Your task to perform on an android device: open app "Paramount+ | Peak Streaming" (install if not already installed) and enter user name: "fostered@yahoo.com" and password: "strong" Image 0: 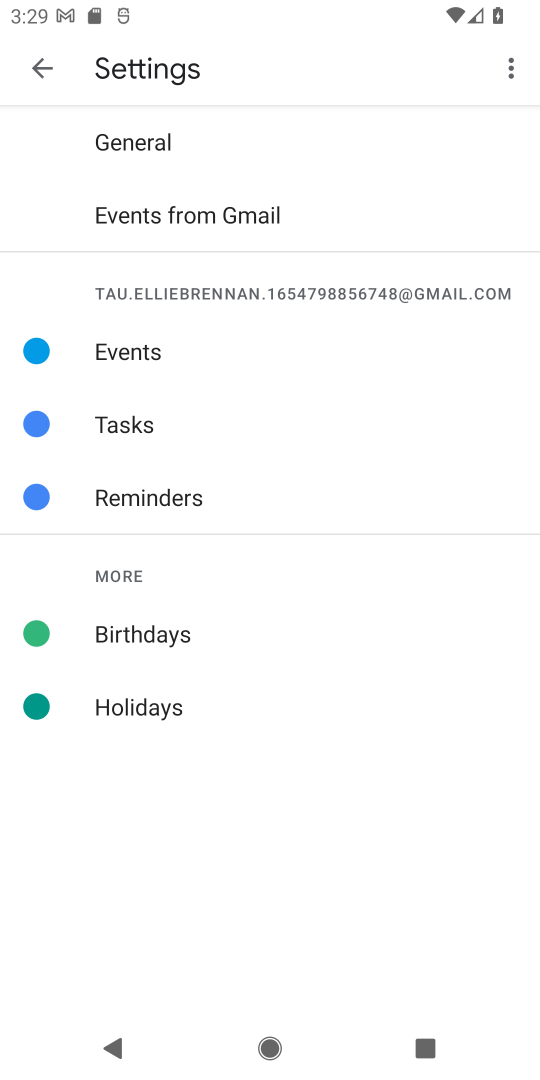
Step 0: press back button
Your task to perform on an android device: open app "Paramount+ | Peak Streaming" (install if not already installed) and enter user name: "fostered@yahoo.com" and password: "strong" Image 1: 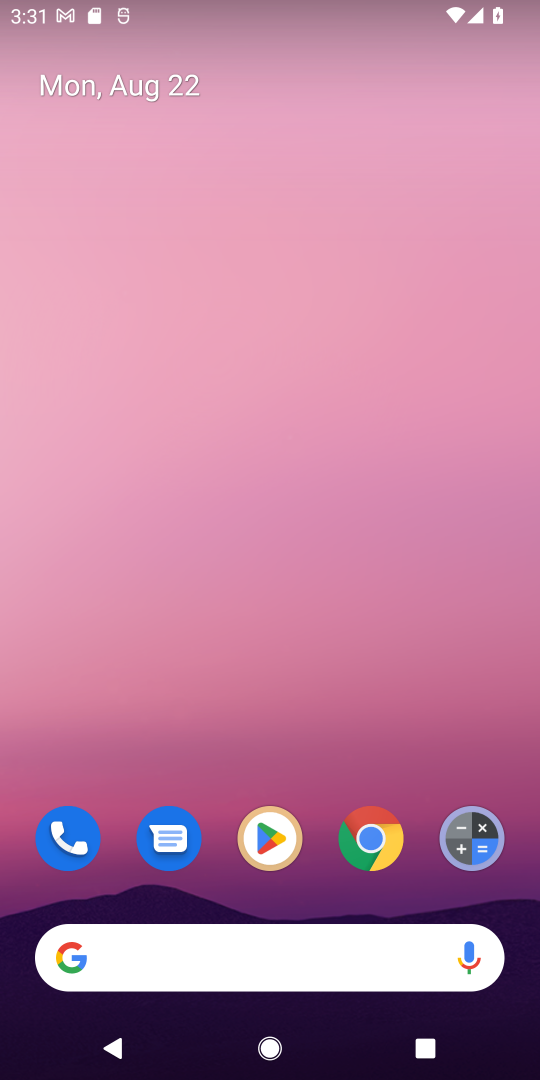
Step 1: click (259, 829)
Your task to perform on an android device: open app "Paramount+ | Peak Streaming" (install if not already installed) and enter user name: "fostered@yahoo.com" and password: "strong" Image 2: 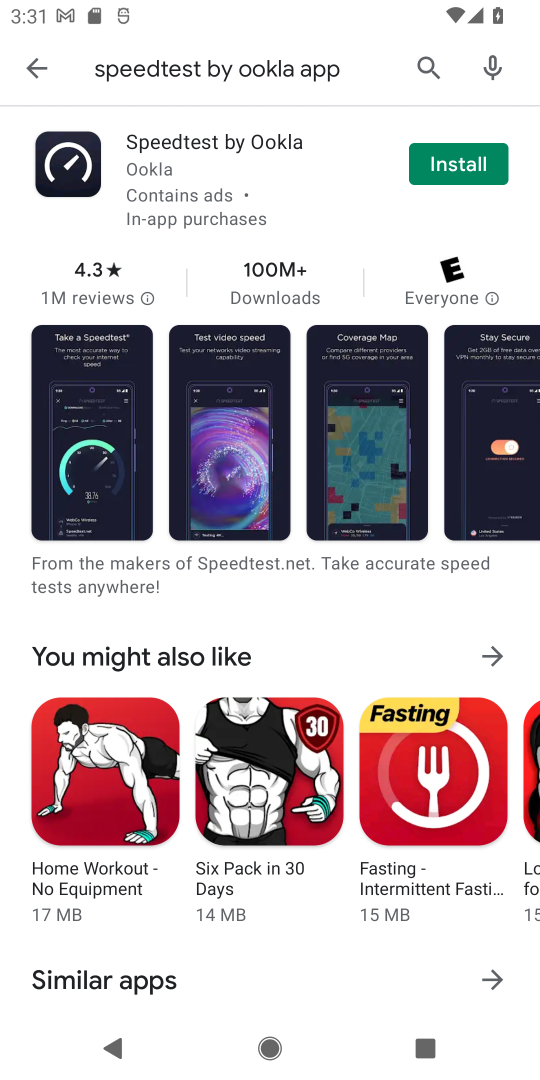
Step 2: click (395, 57)
Your task to perform on an android device: open app "Paramount+ | Peak Streaming" (install if not already installed) and enter user name: "fostered@yahoo.com" and password: "strong" Image 3: 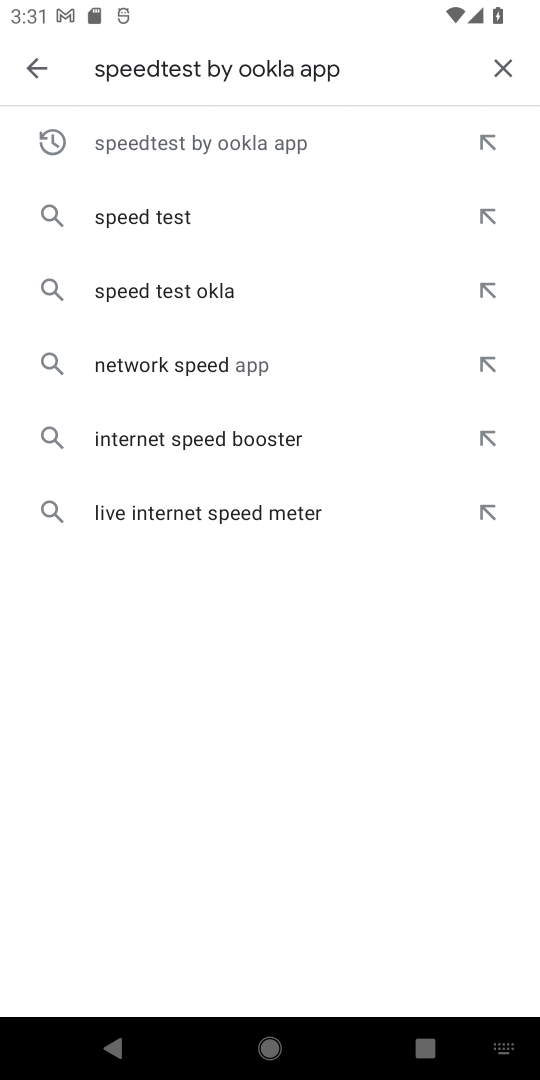
Step 3: click (505, 55)
Your task to perform on an android device: open app "Paramount+ | Peak Streaming" (install if not already installed) and enter user name: "fostered@yahoo.com" and password: "strong" Image 4: 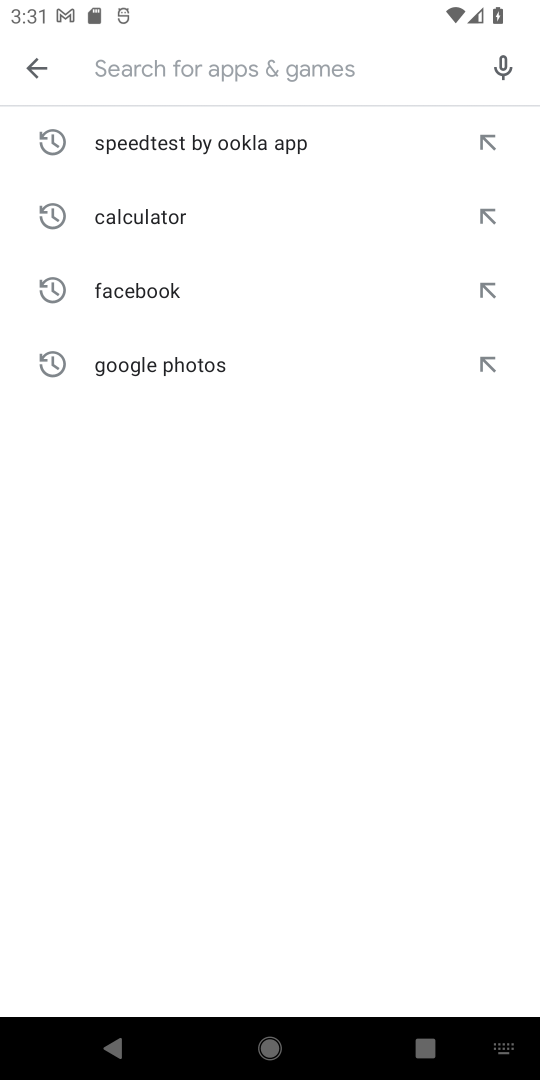
Step 4: click (210, 80)
Your task to perform on an android device: open app "Paramount+ | Peak Streaming" (install if not already installed) and enter user name: "fostered@yahoo.com" and password: "strong" Image 5: 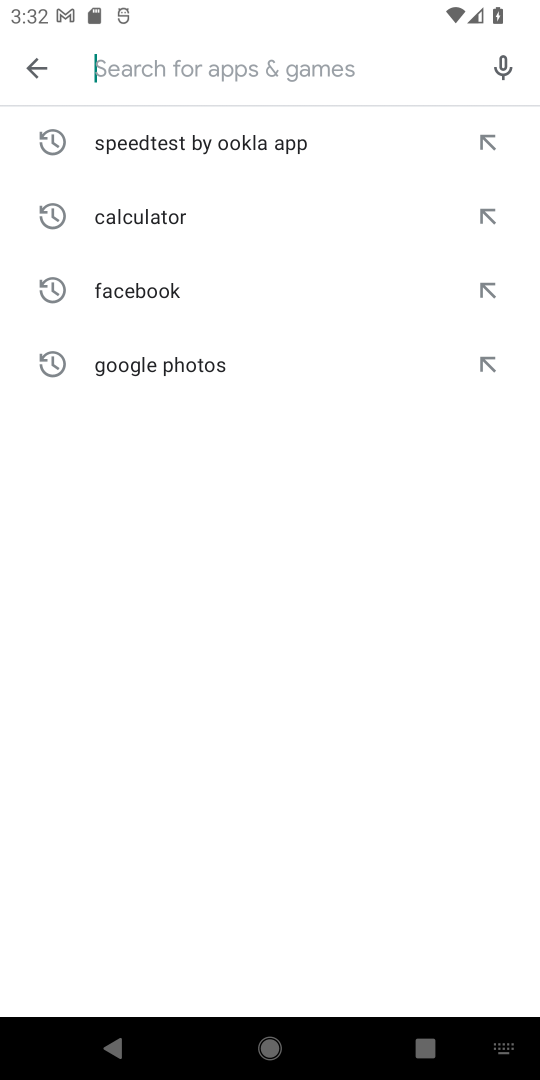
Step 5: click (187, 70)
Your task to perform on an android device: open app "Paramount+ | Peak Streaming" (install if not already installed) and enter user name: "fostered@yahoo.com" and password: "strong" Image 6: 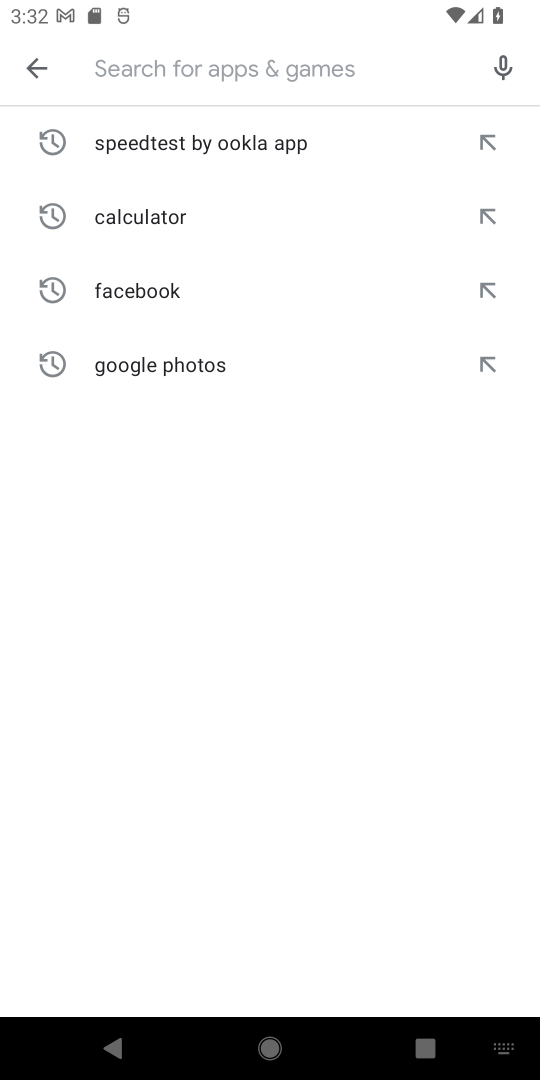
Step 6: type "Paramount+"
Your task to perform on an android device: open app "Paramount+ | Peak Streaming" (install if not already installed) and enter user name: "fostered@yahoo.com" and password: "strong" Image 7: 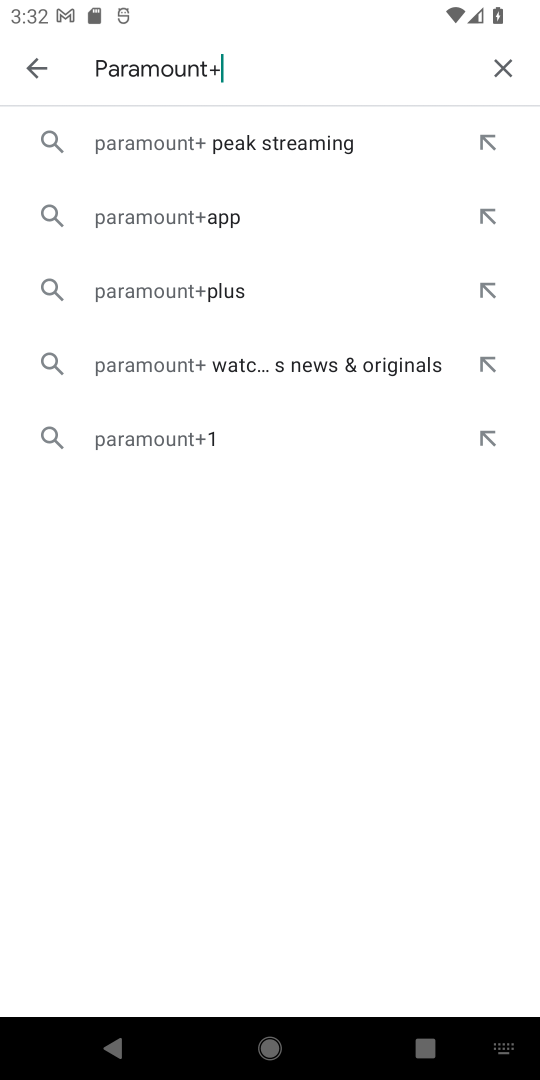
Step 7: click (199, 140)
Your task to perform on an android device: open app "Paramount+ | Peak Streaming" (install if not already installed) and enter user name: "fostered@yahoo.com" and password: "strong" Image 8: 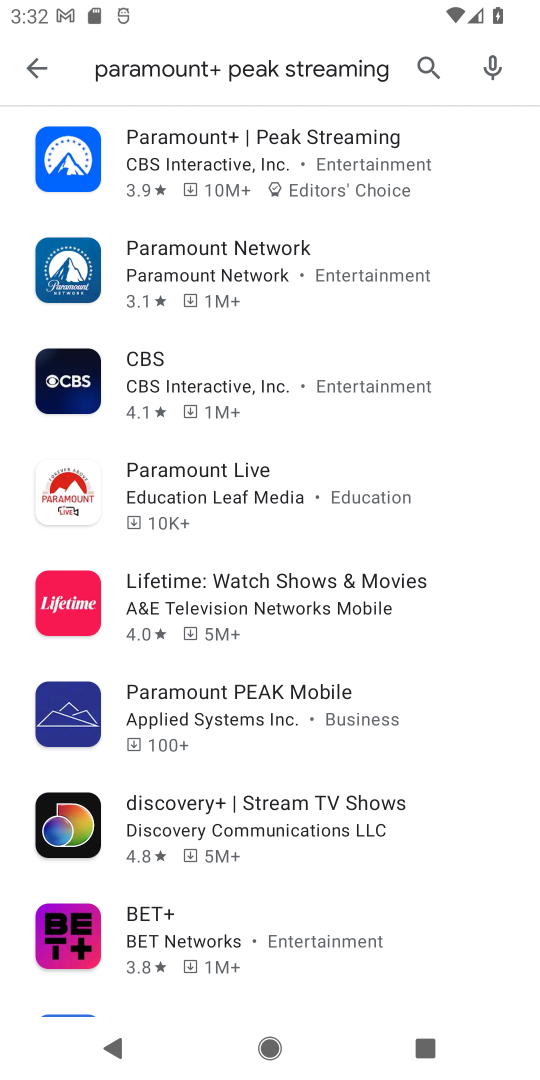
Step 8: click (274, 169)
Your task to perform on an android device: open app "Paramount+ | Peak Streaming" (install if not already installed) and enter user name: "fostered@yahoo.com" and password: "strong" Image 9: 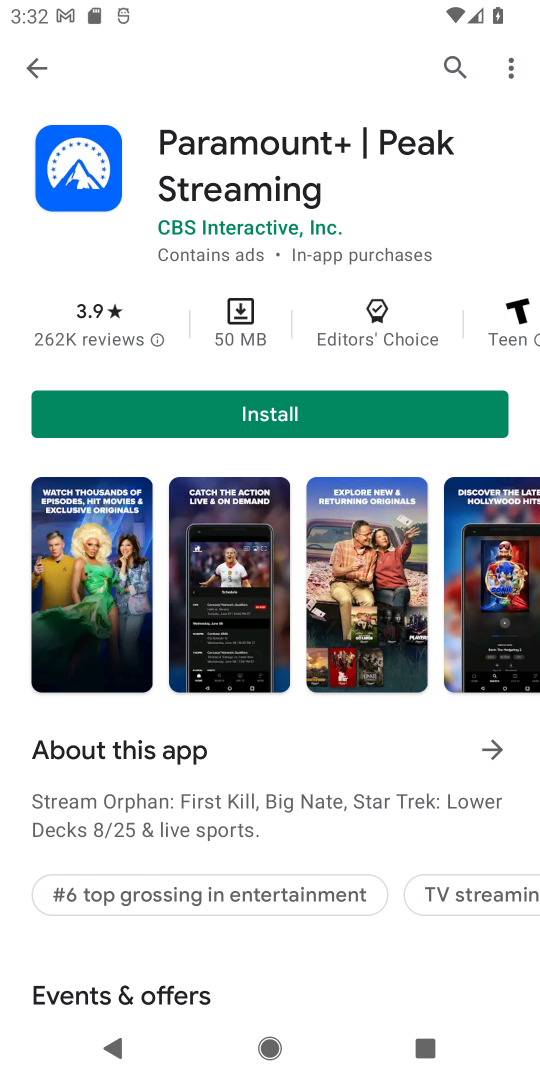
Step 9: click (237, 423)
Your task to perform on an android device: open app "Paramount+ | Peak Streaming" (install if not already installed) and enter user name: "fostered@yahoo.com" and password: "strong" Image 10: 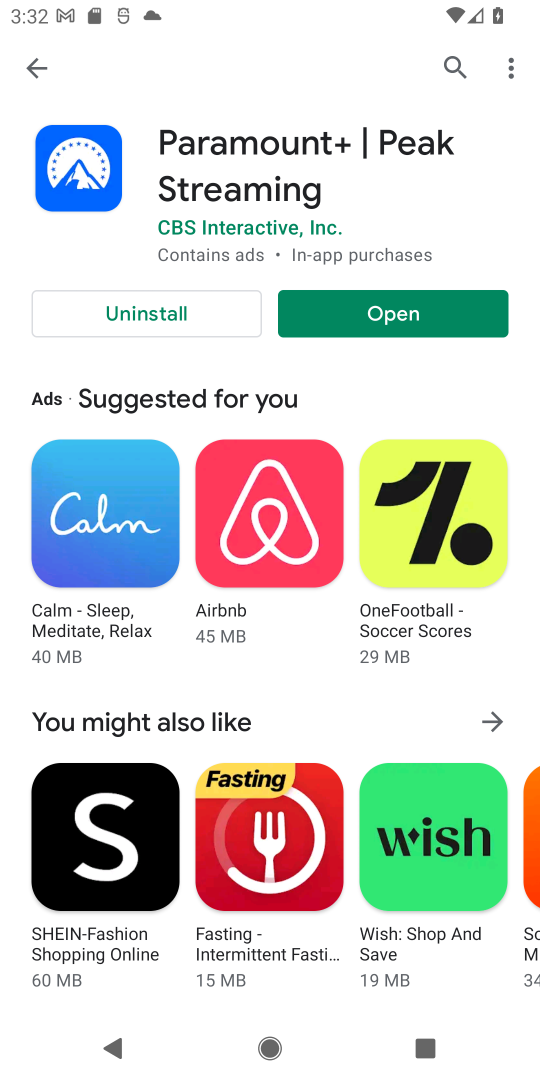
Step 10: click (421, 327)
Your task to perform on an android device: open app "Paramount+ | Peak Streaming" (install if not already installed) and enter user name: "fostered@yahoo.com" and password: "strong" Image 11: 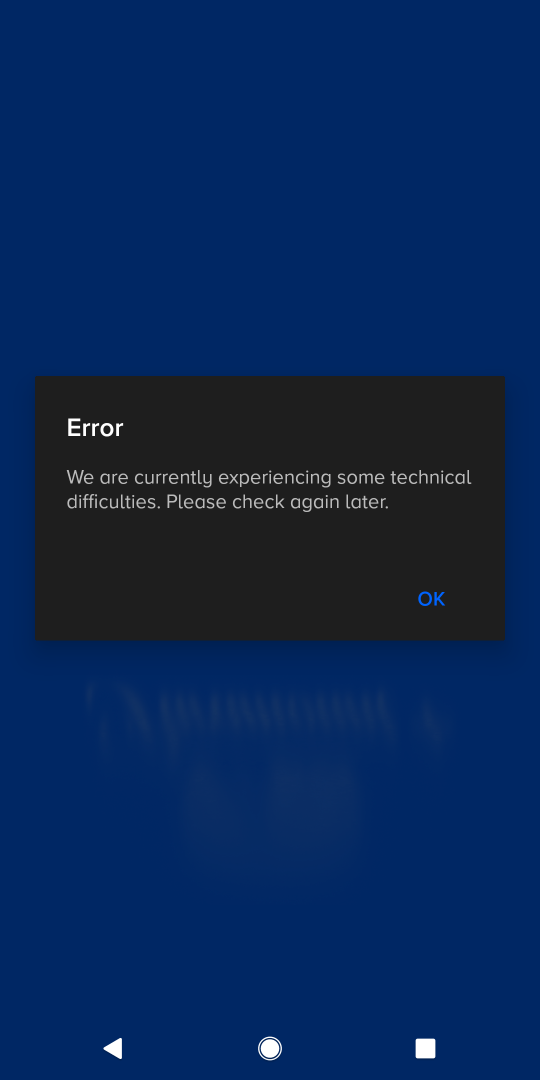
Step 11: click (445, 615)
Your task to perform on an android device: open app "Paramount+ | Peak Streaming" (install if not already installed) and enter user name: "fostered@yahoo.com" and password: "strong" Image 12: 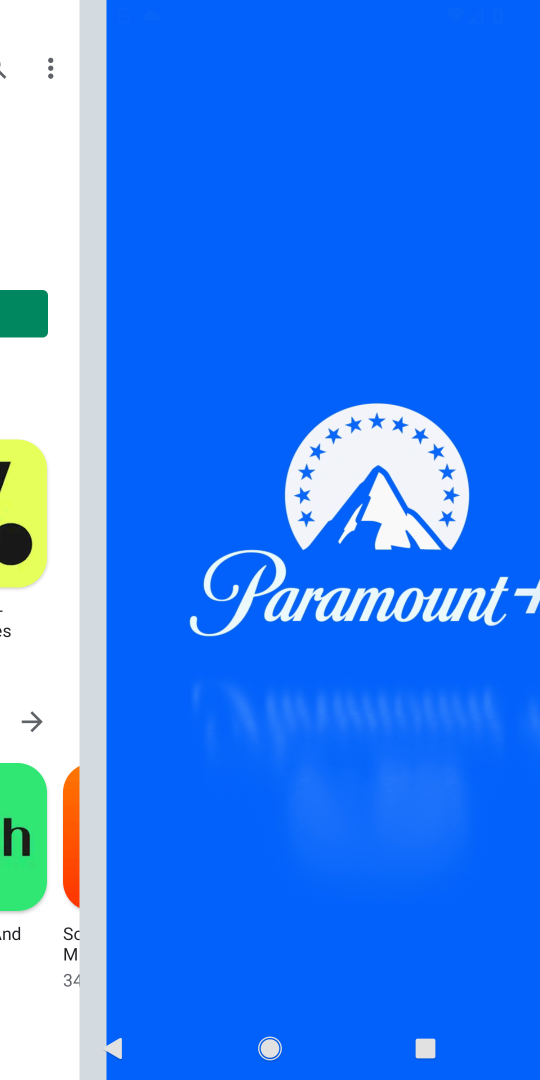
Step 12: task complete